Your task to perform on an android device: Search for a new foundation (skincare) product Image 0: 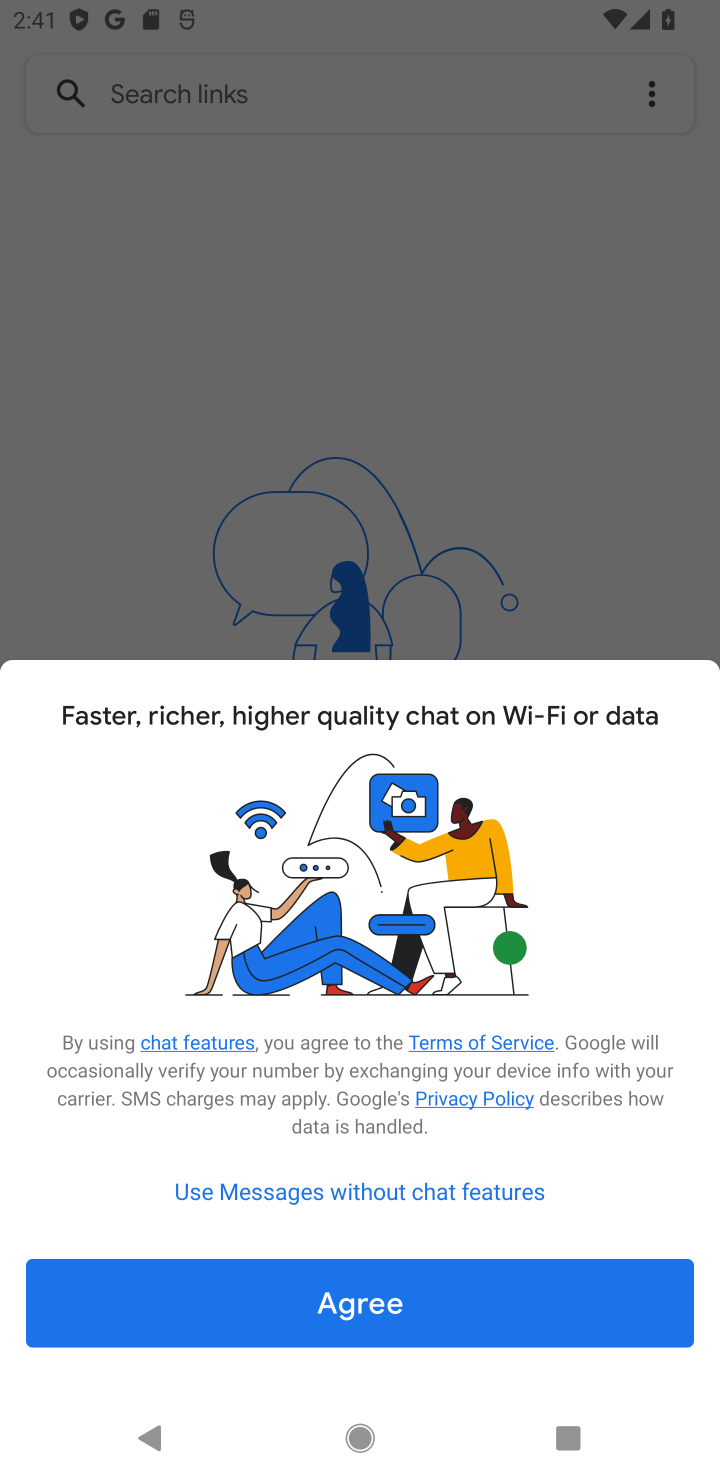
Step 0: press home button
Your task to perform on an android device: Search for a new foundation (skincare) product Image 1: 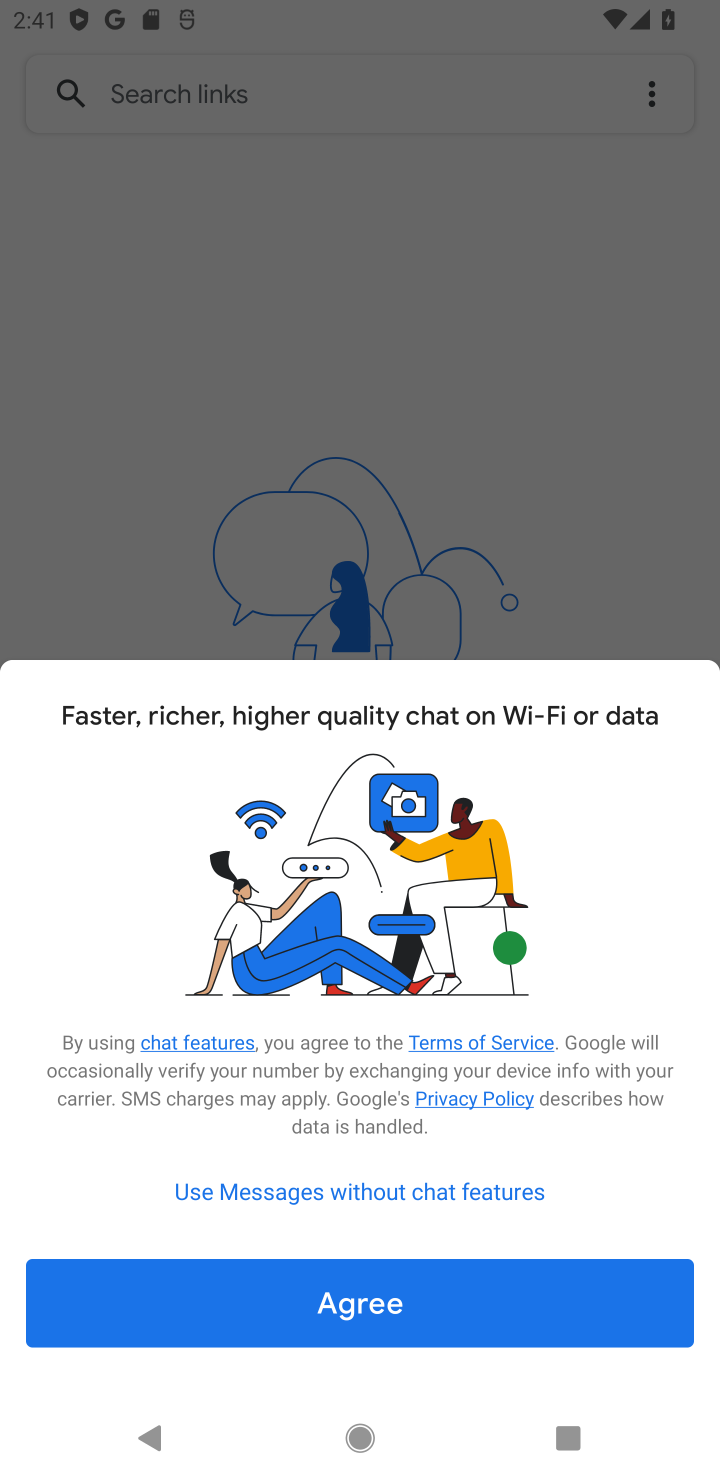
Step 1: press home button
Your task to perform on an android device: Search for a new foundation (skincare) product Image 2: 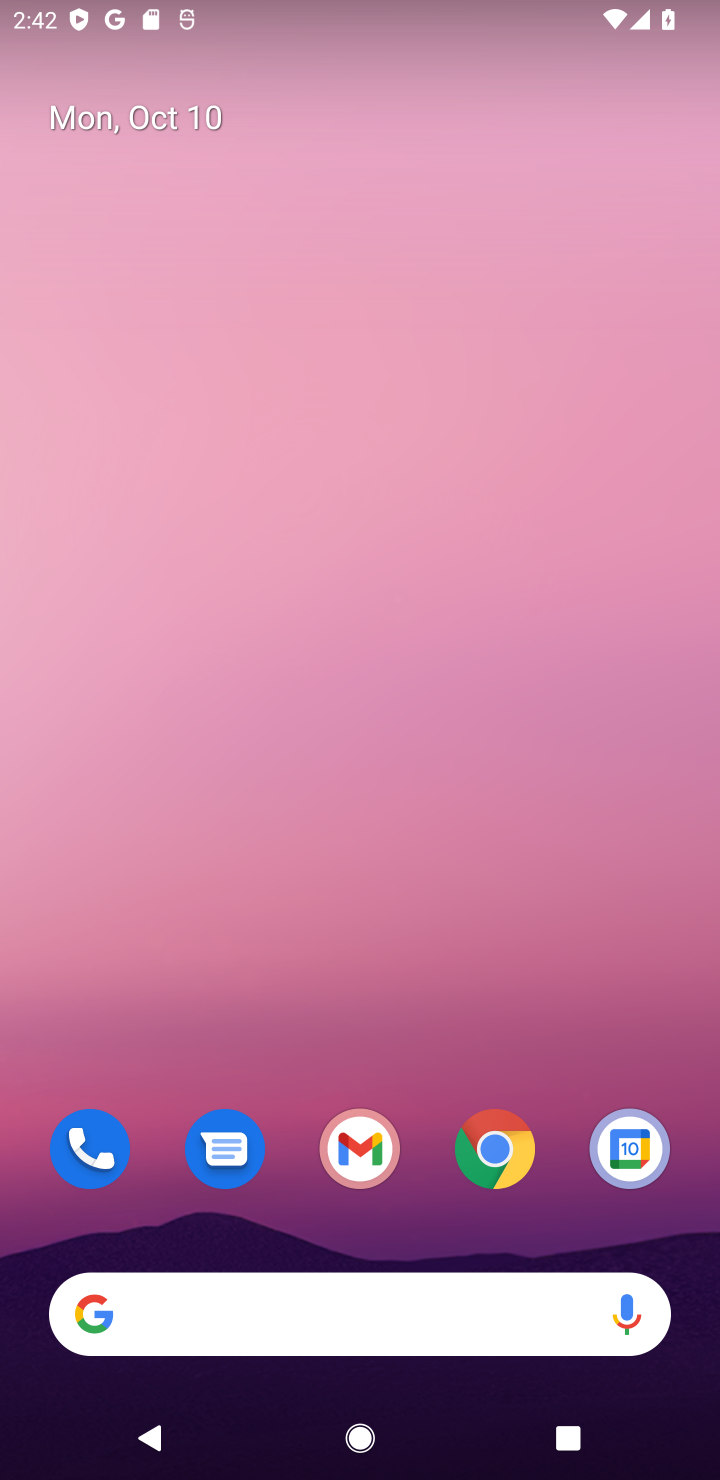
Step 2: click (290, 1324)
Your task to perform on an android device: Search for a new foundation (skincare) product Image 3: 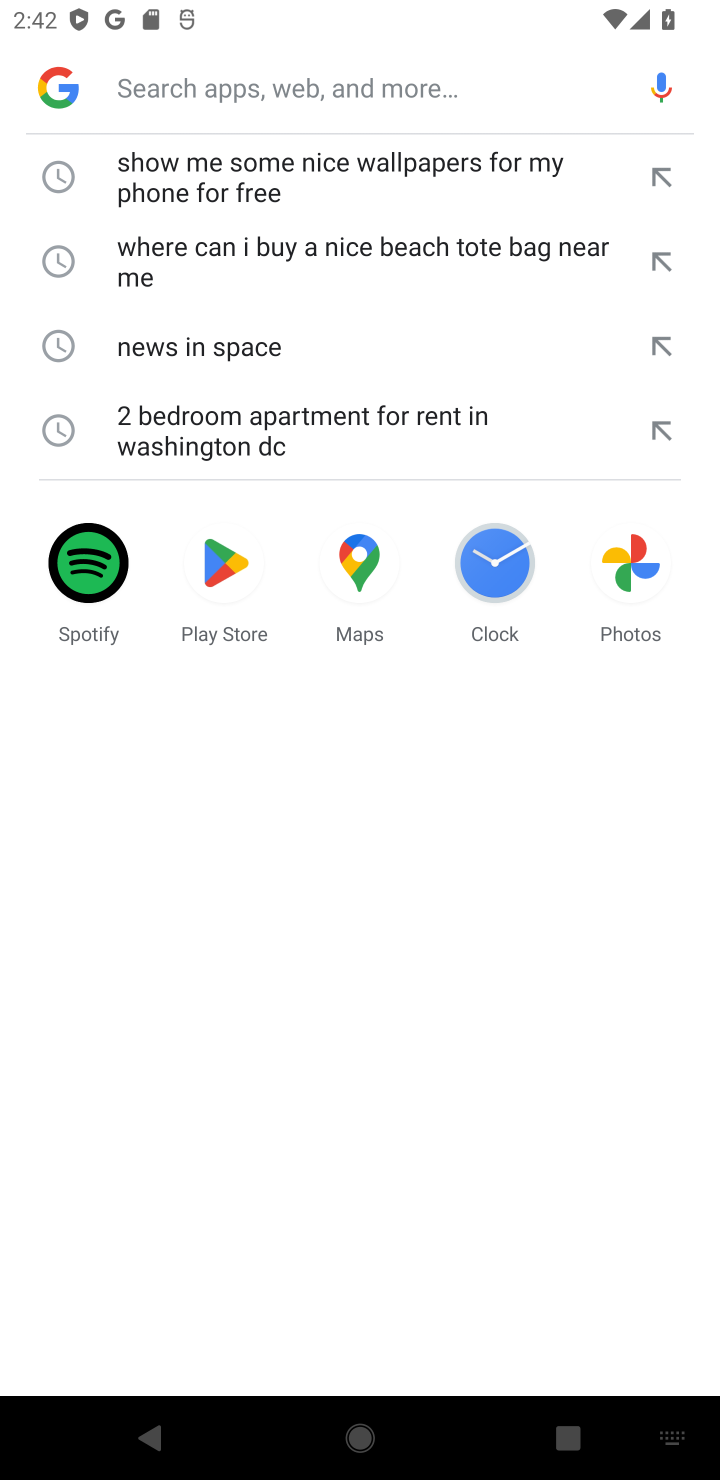
Step 3: type "new foundation (skincare) product"
Your task to perform on an android device: Search for a new foundation (skincare) product Image 4: 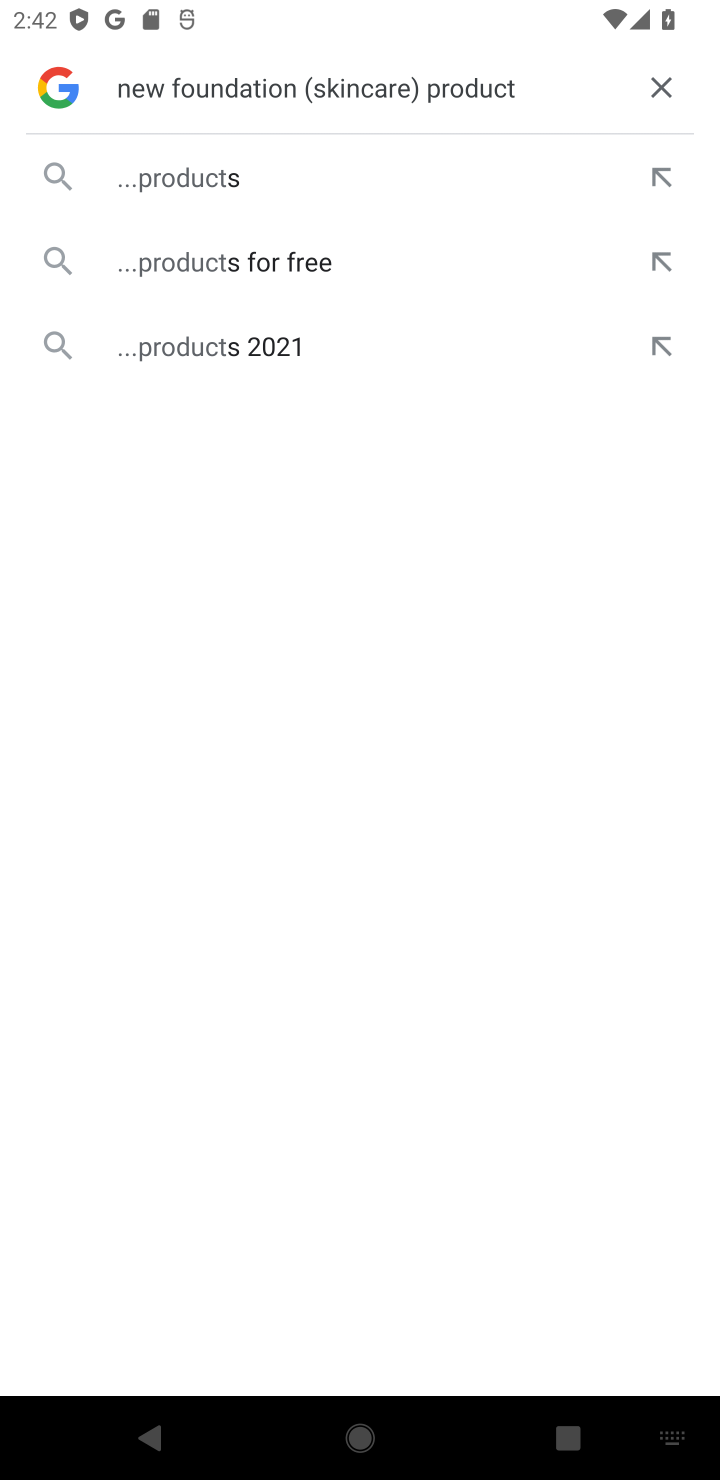
Step 4: click (270, 196)
Your task to perform on an android device: Search for a new foundation (skincare) product Image 5: 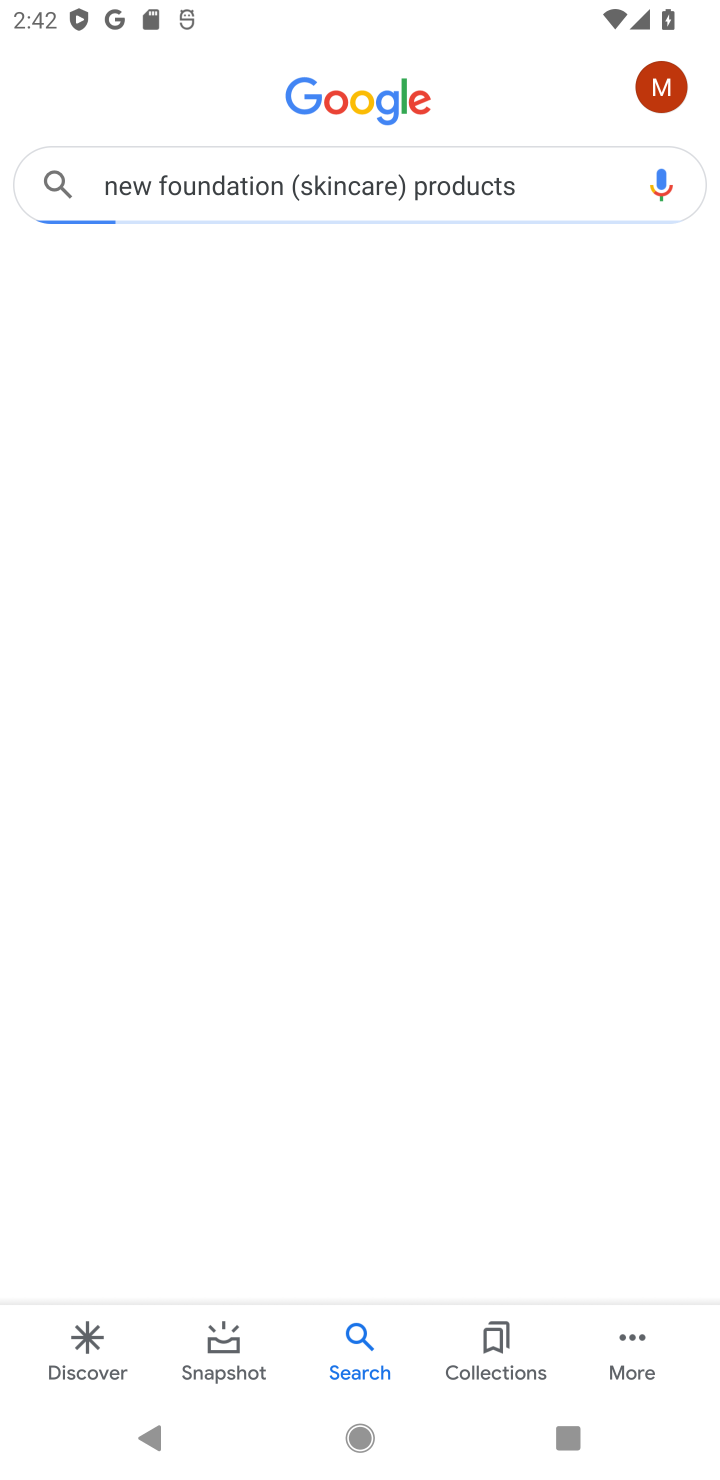
Step 5: task complete